Your task to perform on an android device: Show me the alarms in the clock app Image 0: 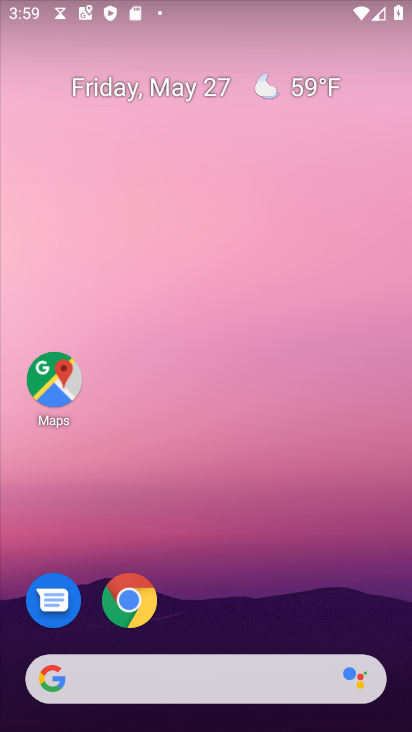
Step 0: drag from (245, 561) to (227, 268)
Your task to perform on an android device: Show me the alarms in the clock app Image 1: 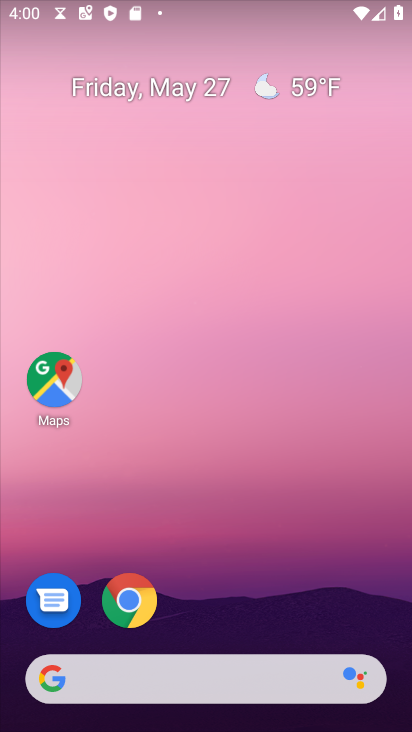
Step 1: drag from (238, 580) to (220, 52)
Your task to perform on an android device: Show me the alarms in the clock app Image 2: 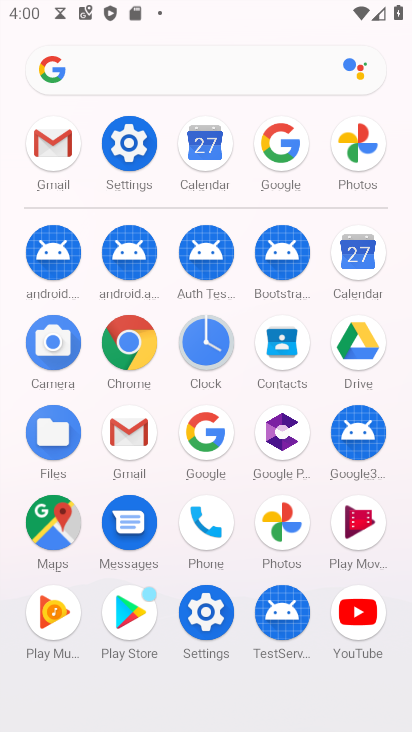
Step 2: click (207, 339)
Your task to perform on an android device: Show me the alarms in the clock app Image 3: 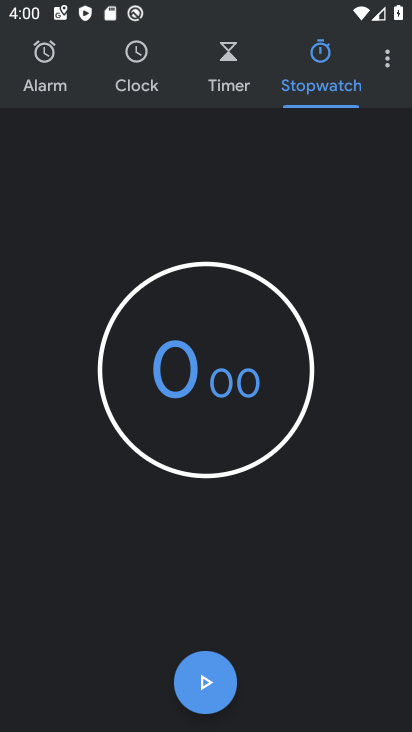
Step 3: click (46, 56)
Your task to perform on an android device: Show me the alarms in the clock app Image 4: 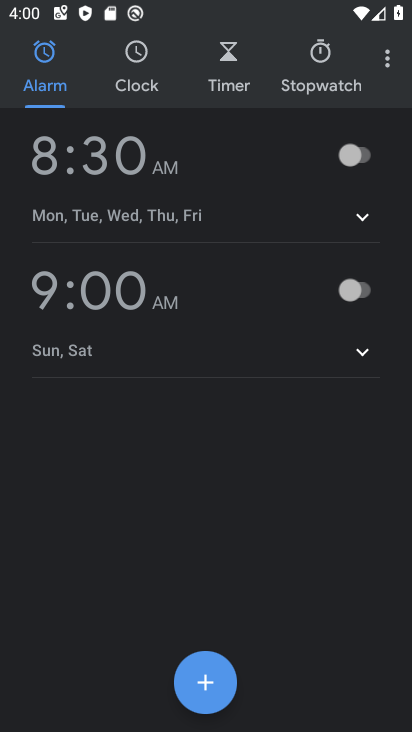
Step 4: task complete